Your task to perform on an android device: check storage Image 0: 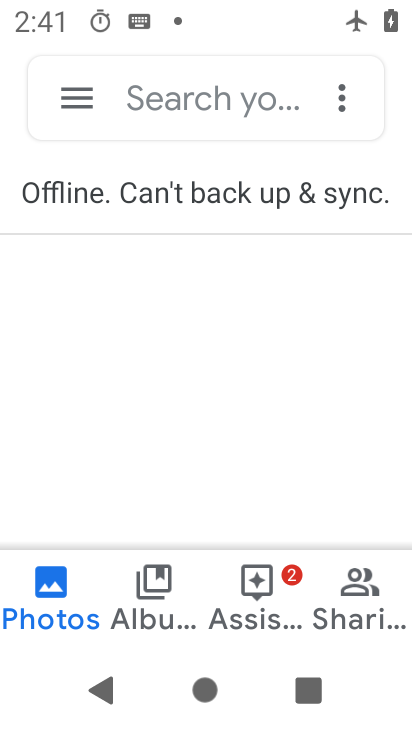
Step 0: press home button
Your task to perform on an android device: check storage Image 1: 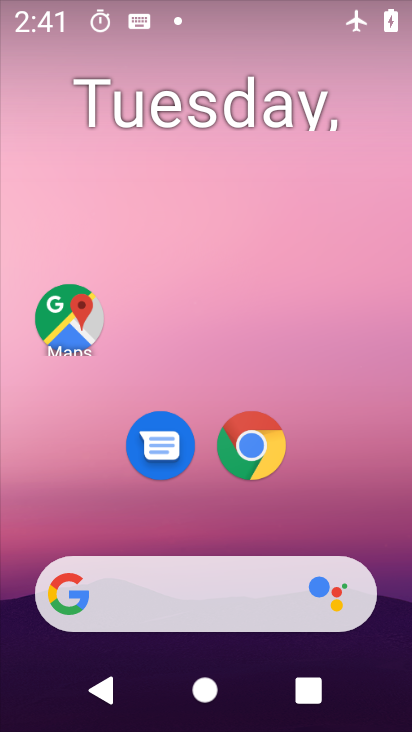
Step 1: drag from (328, 485) to (205, 151)
Your task to perform on an android device: check storage Image 2: 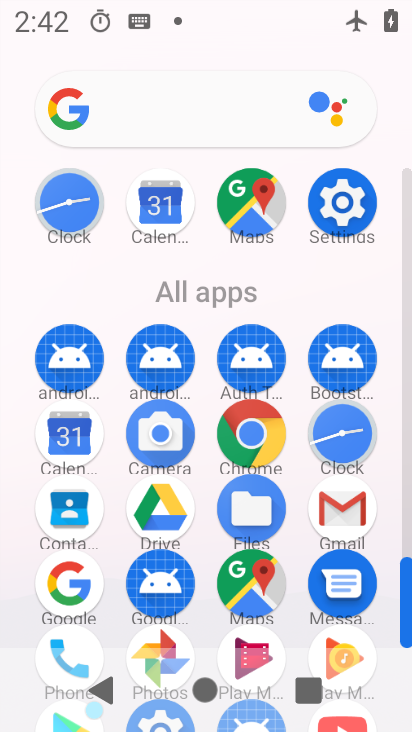
Step 2: click (347, 218)
Your task to perform on an android device: check storage Image 3: 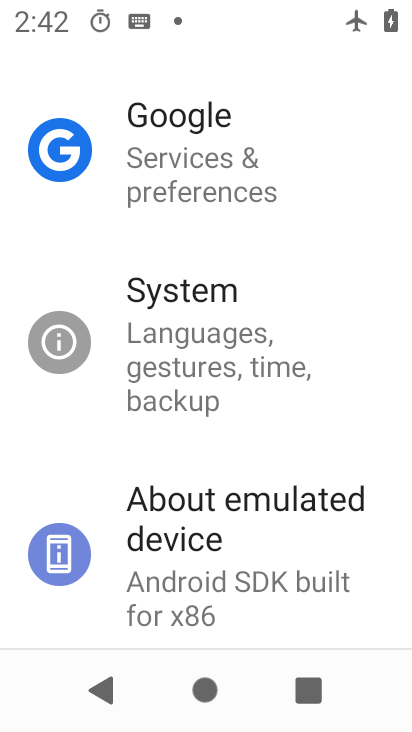
Step 3: drag from (268, 210) to (255, 558)
Your task to perform on an android device: check storage Image 4: 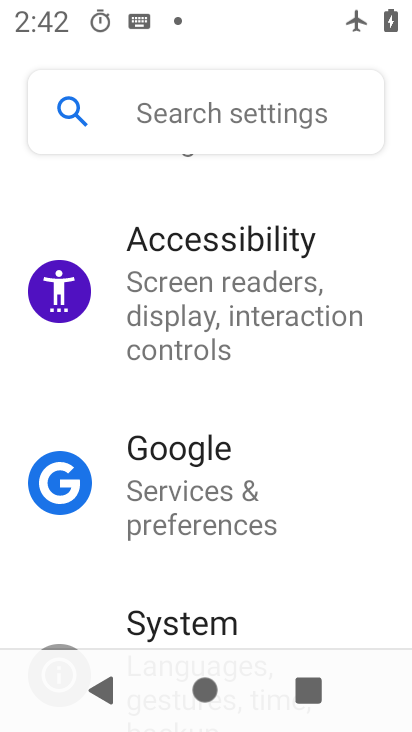
Step 4: drag from (263, 240) to (277, 564)
Your task to perform on an android device: check storage Image 5: 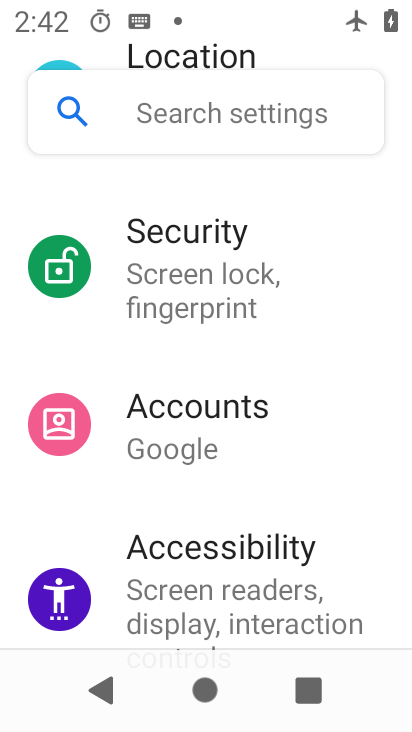
Step 5: drag from (280, 289) to (271, 620)
Your task to perform on an android device: check storage Image 6: 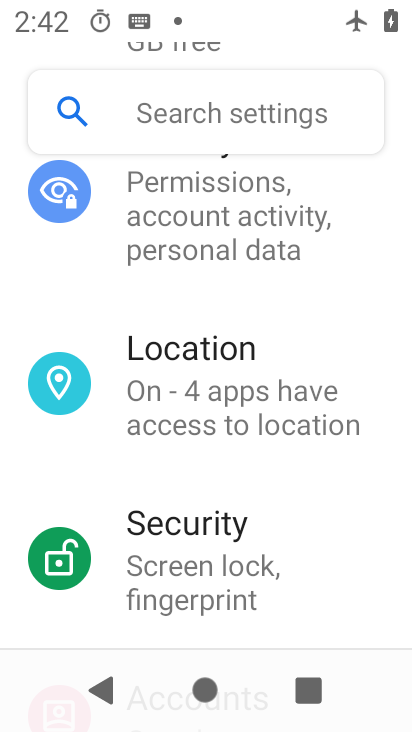
Step 6: drag from (283, 301) to (261, 671)
Your task to perform on an android device: check storage Image 7: 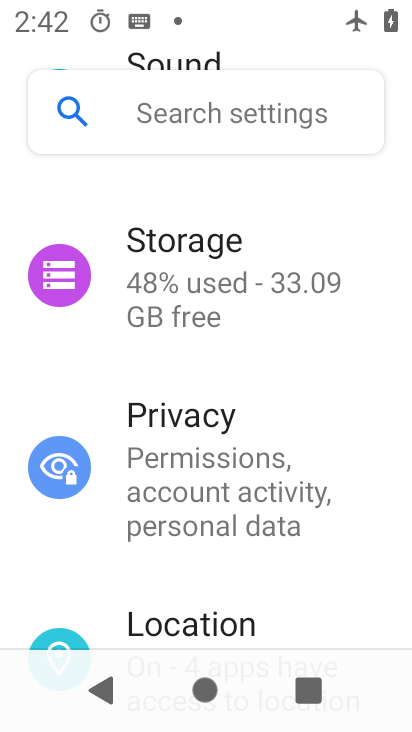
Step 7: drag from (252, 216) to (234, 421)
Your task to perform on an android device: check storage Image 8: 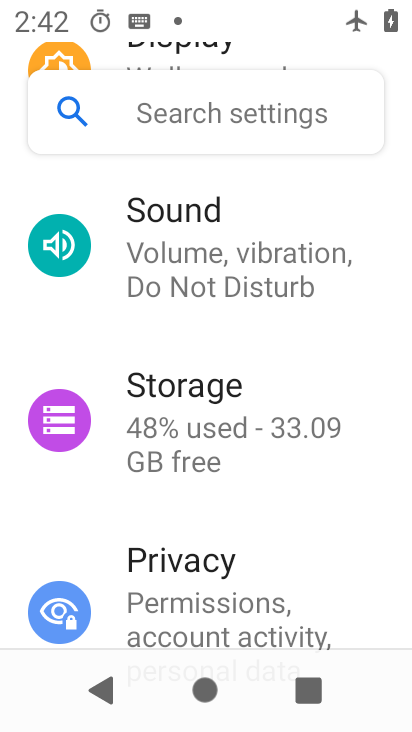
Step 8: click (210, 444)
Your task to perform on an android device: check storage Image 9: 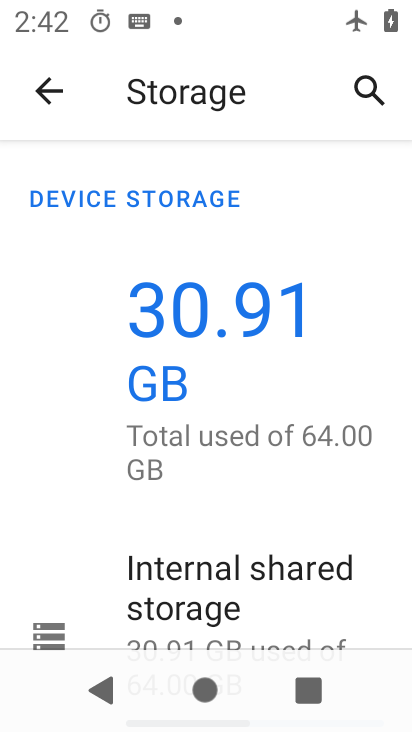
Step 9: task complete